Your task to perform on an android device: Clear the shopping cart on target.com. Add "usb-a" to the cart on target.com Image 0: 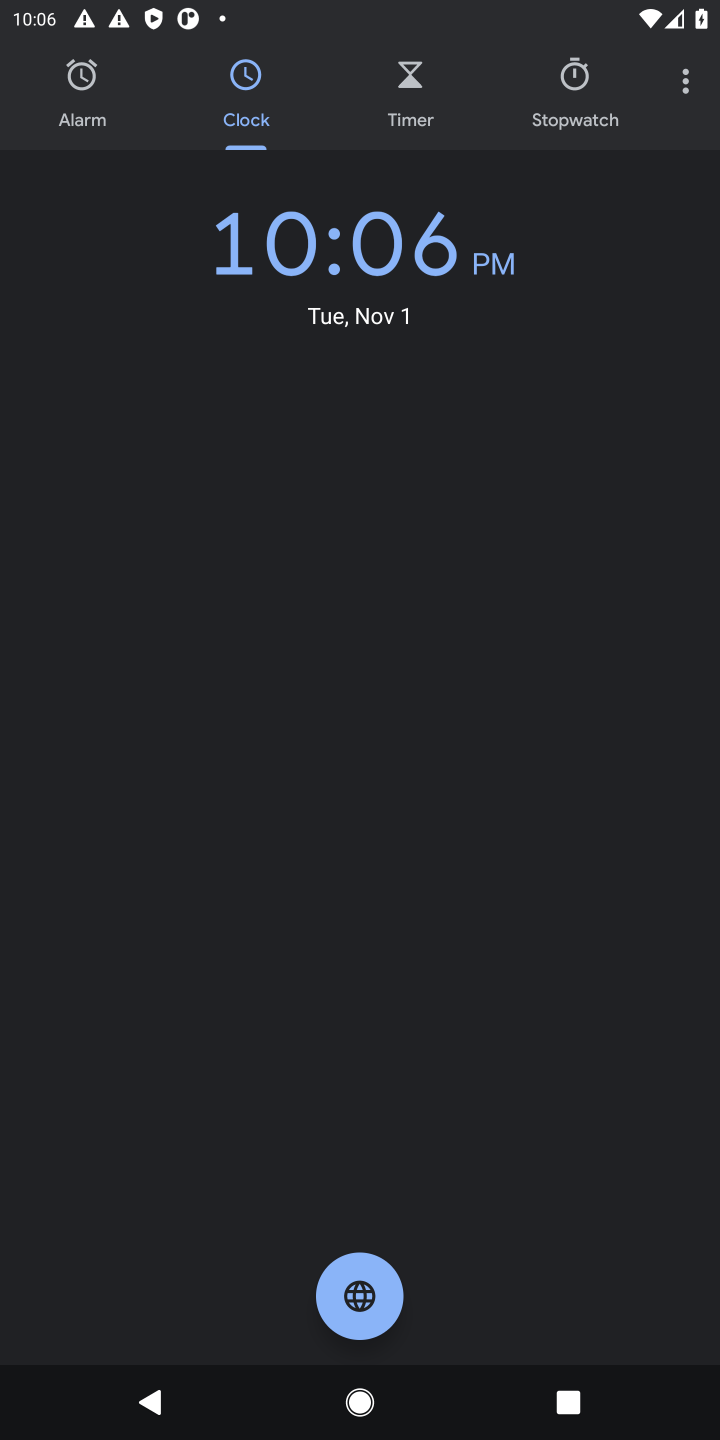
Step 0: press home button
Your task to perform on an android device: Clear the shopping cart on target.com. Add "usb-a" to the cart on target.com Image 1: 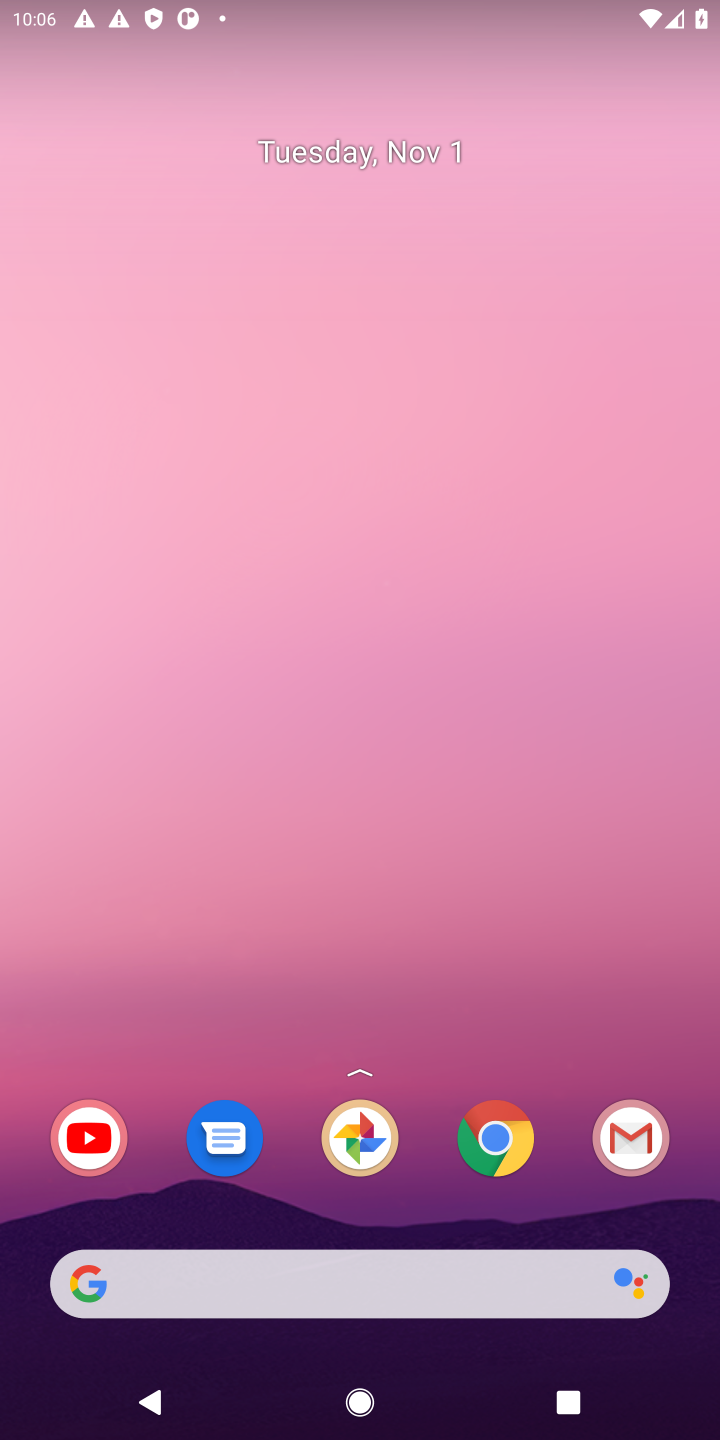
Step 1: click (495, 1150)
Your task to perform on an android device: Clear the shopping cart on target.com. Add "usb-a" to the cart on target.com Image 2: 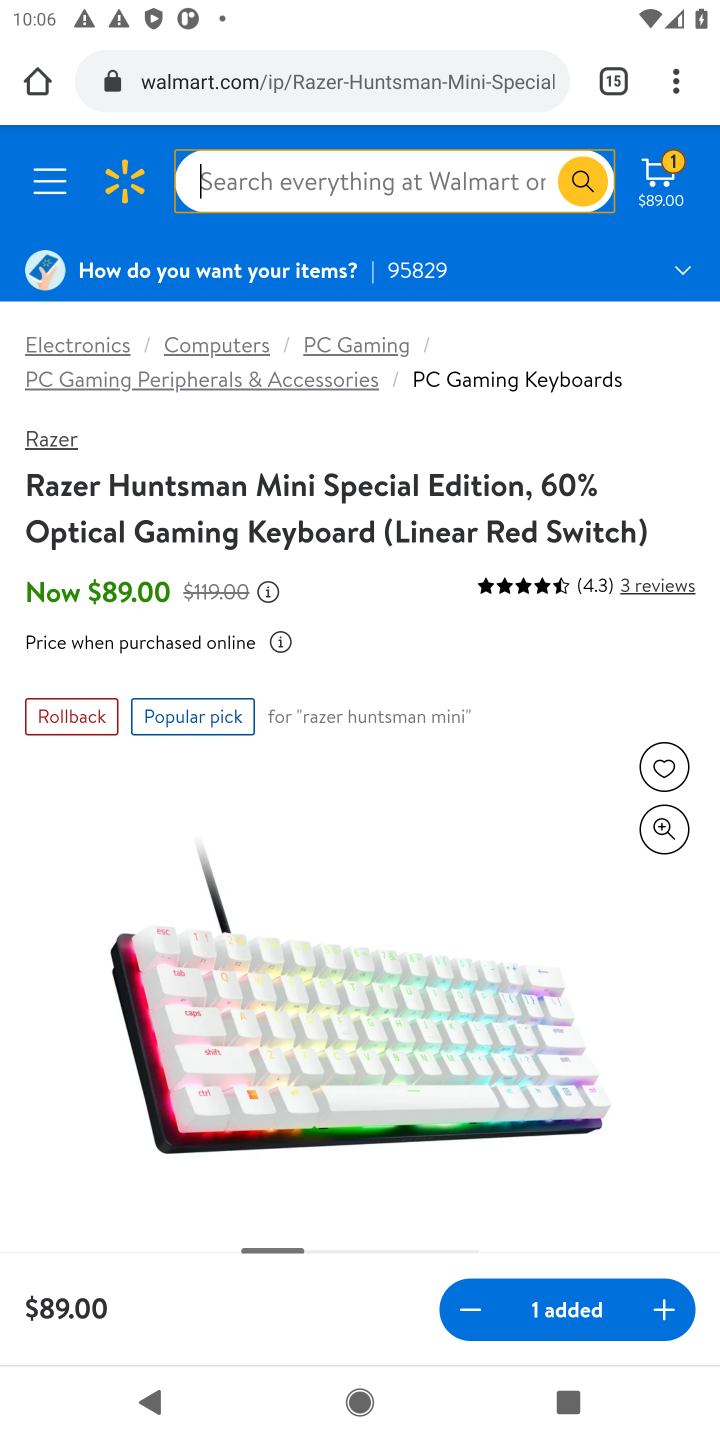
Step 2: drag from (680, 93) to (346, 157)
Your task to perform on an android device: Clear the shopping cart on target.com. Add "usb-a" to the cart on target.com Image 3: 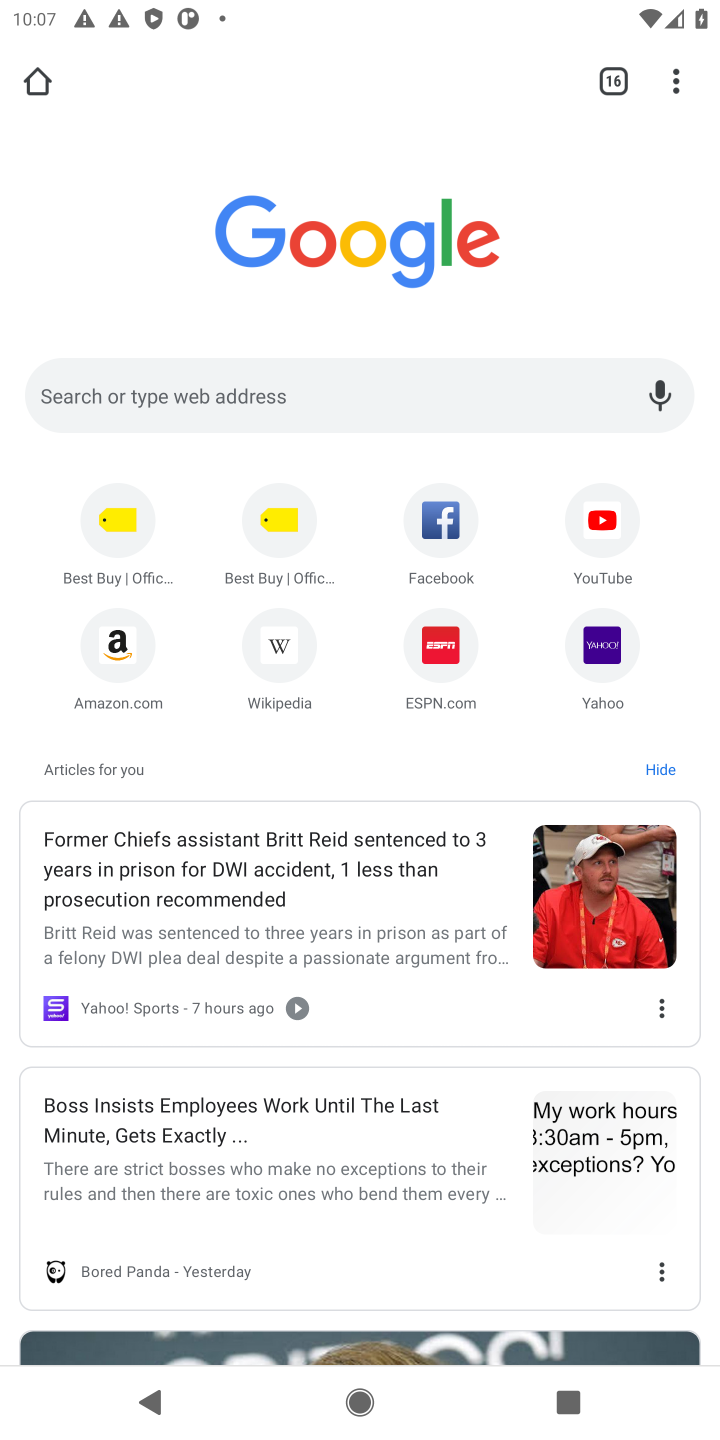
Step 3: click (186, 396)
Your task to perform on an android device: Clear the shopping cart on target.com. Add "usb-a" to the cart on target.com Image 4: 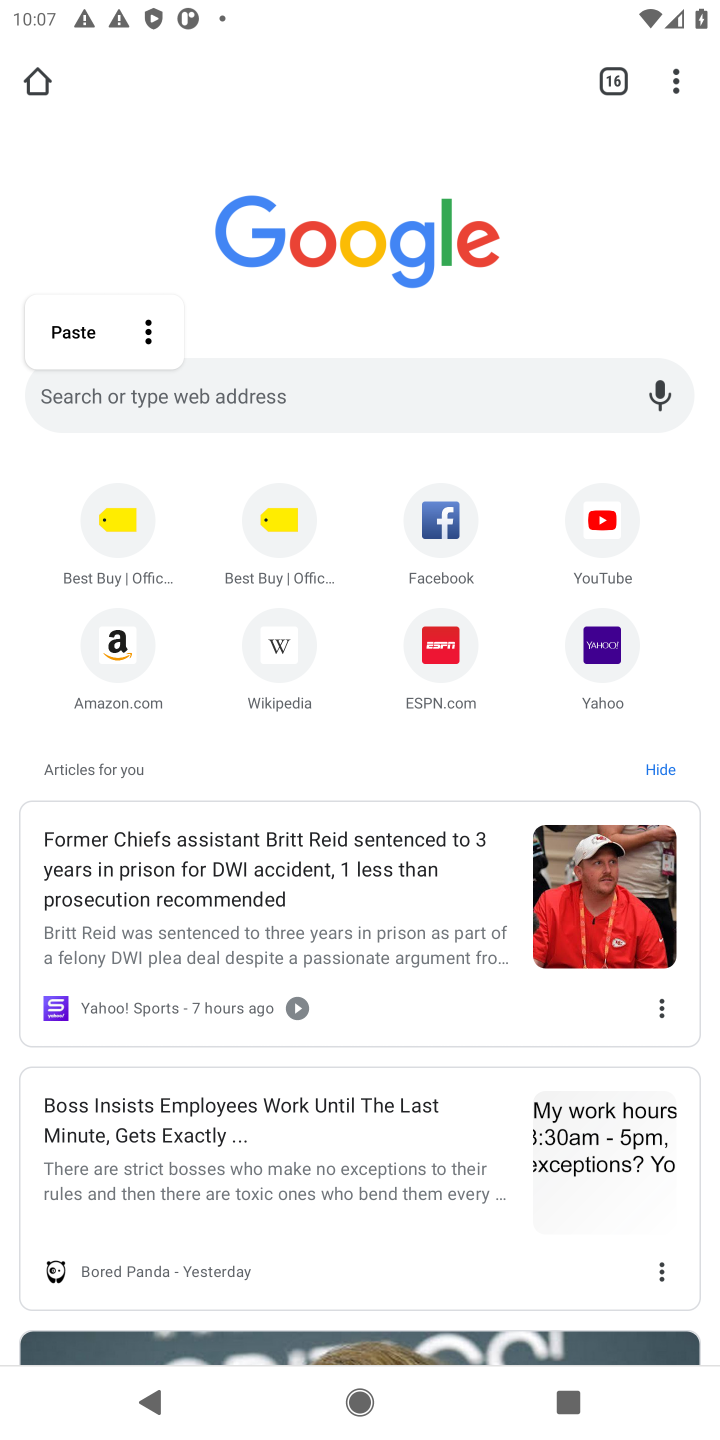
Step 4: click (372, 401)
Your task to perform on an android device: Clear the shopping cart on target.com. Add "usb-a" to the cart on target.com Image 5: 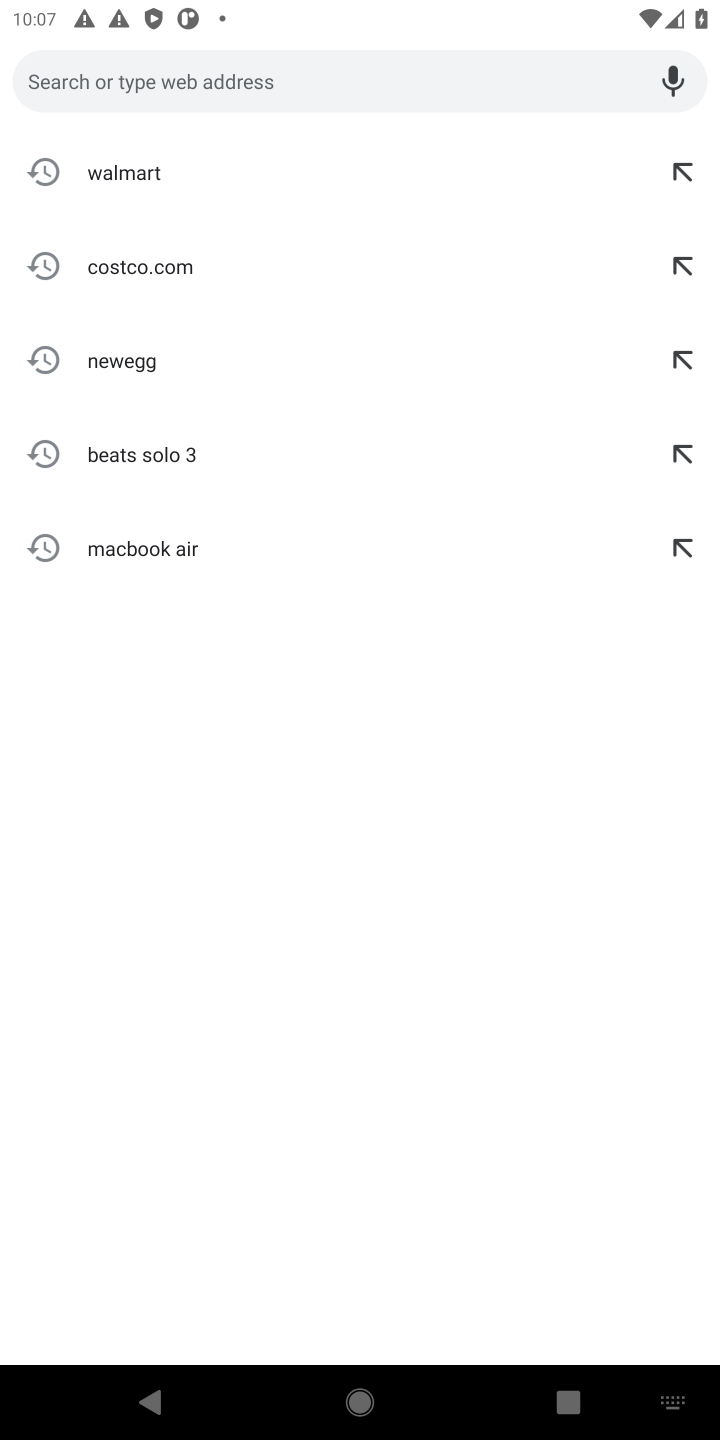
Step 5: type "target.com"
Your task to perform on an android device: Clear the shopping cart on target.com. Add "usb-a" to the cart on target.com Image 6: 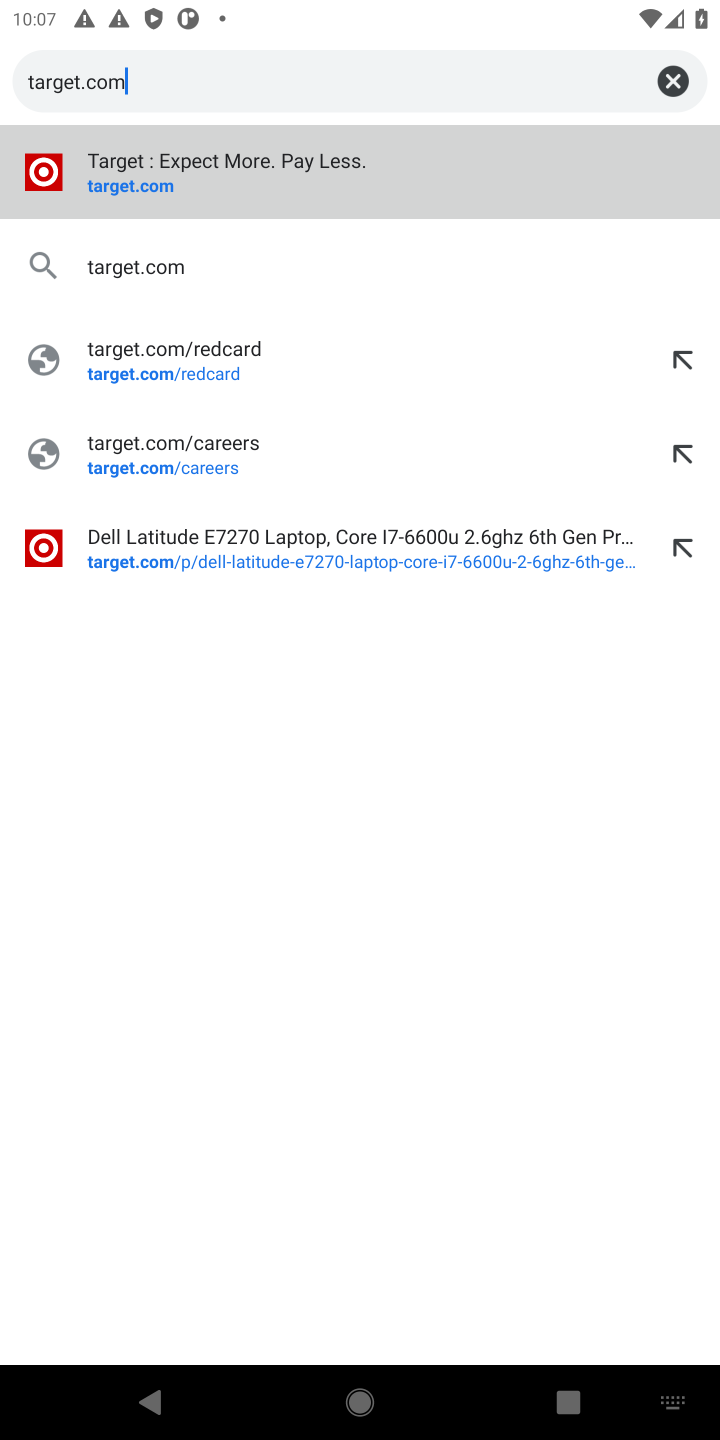
Step 6: type "usb-a"
Your task to perform on an android device: Clear the shopping cart on target.com. Add "usb-a" to the cart on target.com Image 7: 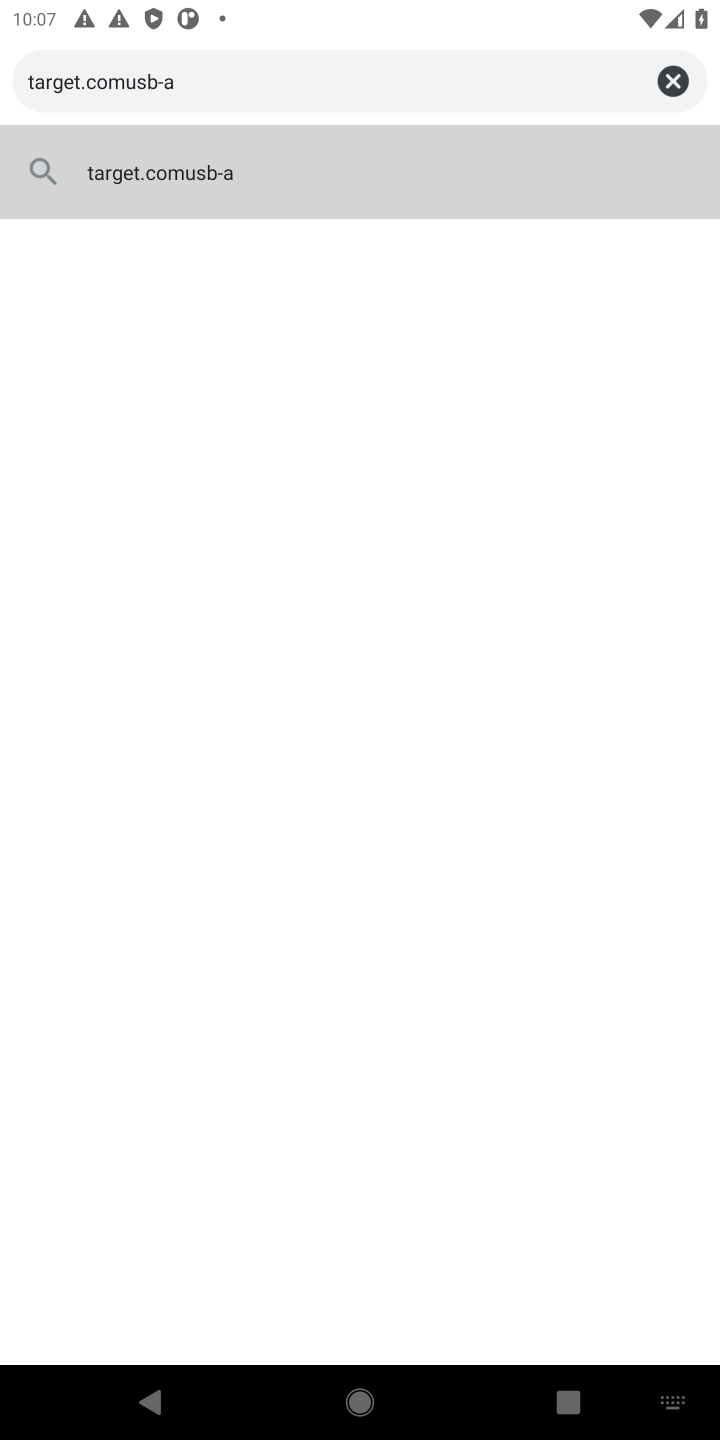
Step 7: type ""
Your task to perform on an android device: Clear the shopping cart on target.com. Add "usb-a" to the cart on target.com Image 8: 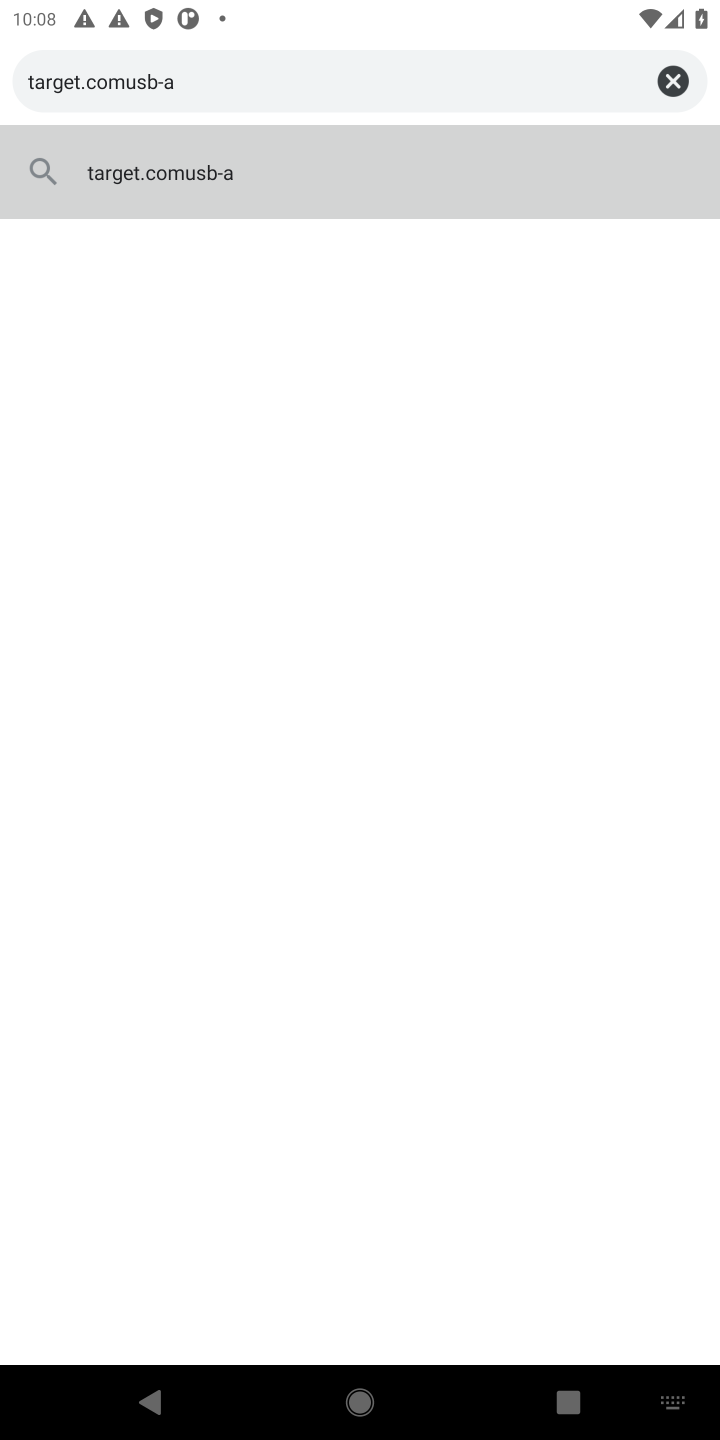
Step 8: click (129, 179)
Your task to perform on an android device: Clear the shopping cart on target.com. Add "usb-a" to the cart on target.com Image 9: 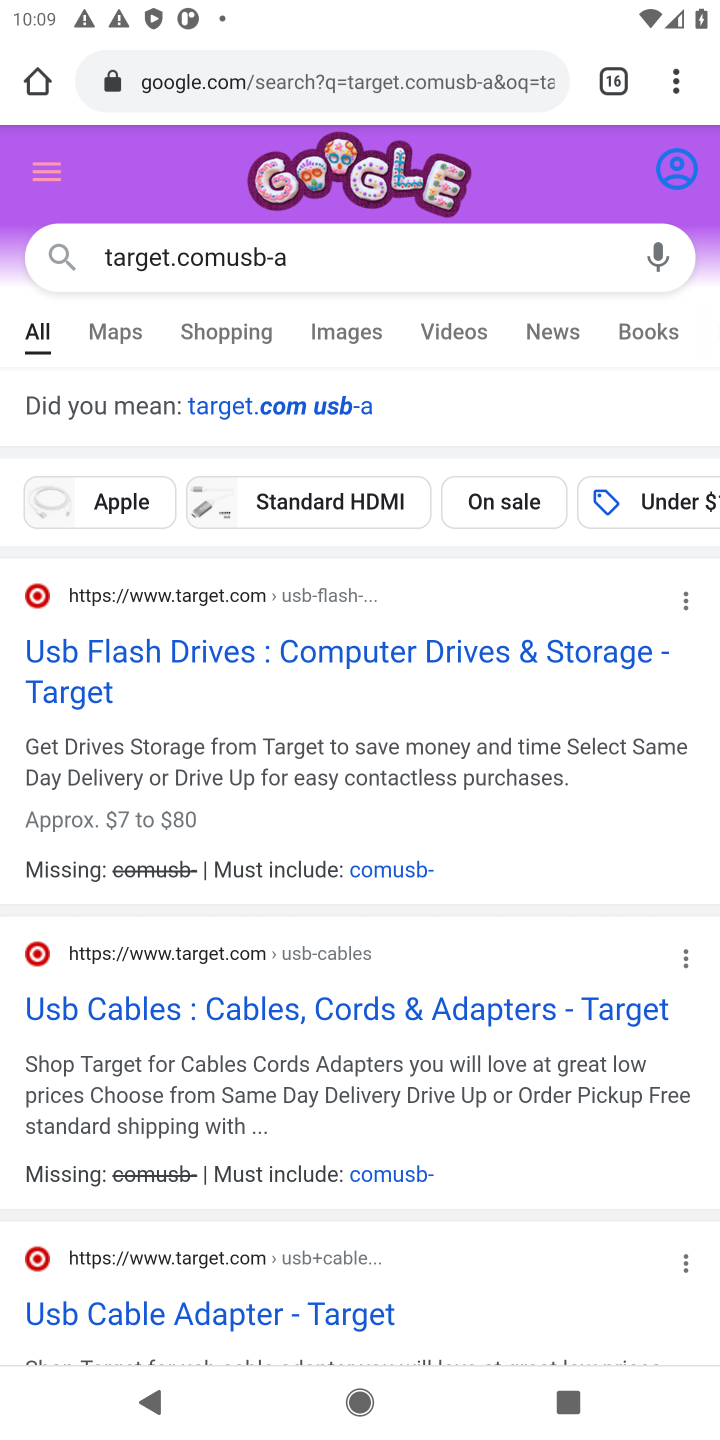
Step 9: click (124, 652)
Your task to perform on an android device: Clear the shopping cart on target.com. Add "usb-a" to the cart on target.com Image 10: 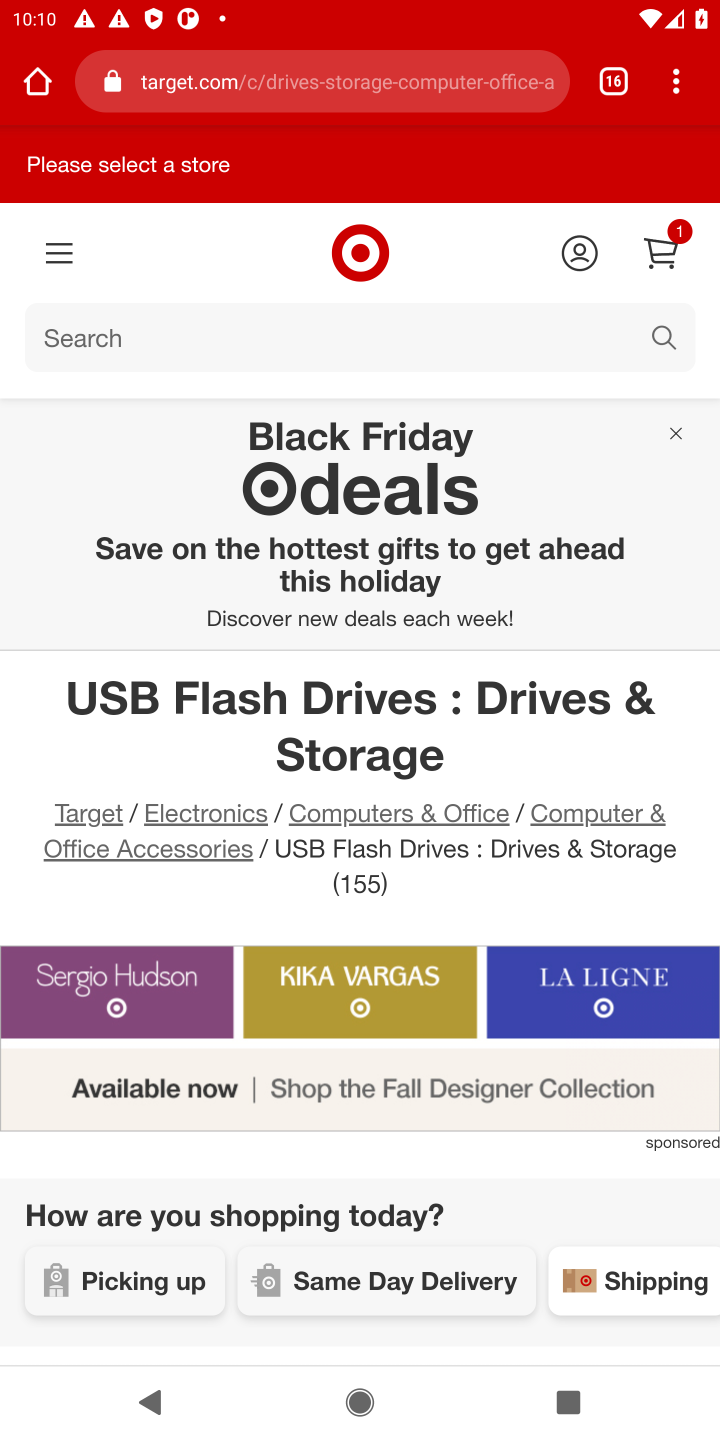
Step 10: click (472, 348)
Your task to perform on an android device: Clear the shopping cart on target.com. Add "usb-a" to the cart on target.com Image 11: 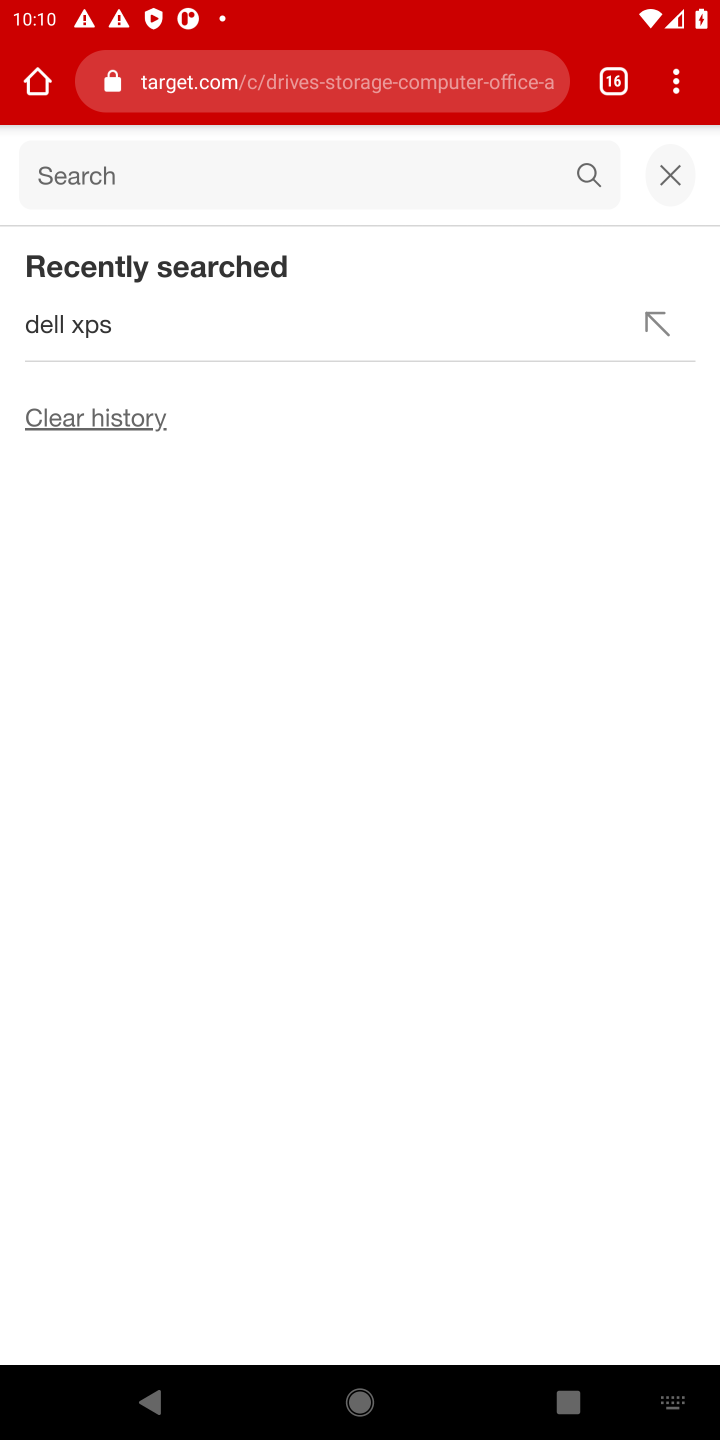
Step 11: type "usb-a"
Your task to perform on an android device: Clear the shopping cart on target.com. Add "usb-a" to the cart on target.com Image 12: 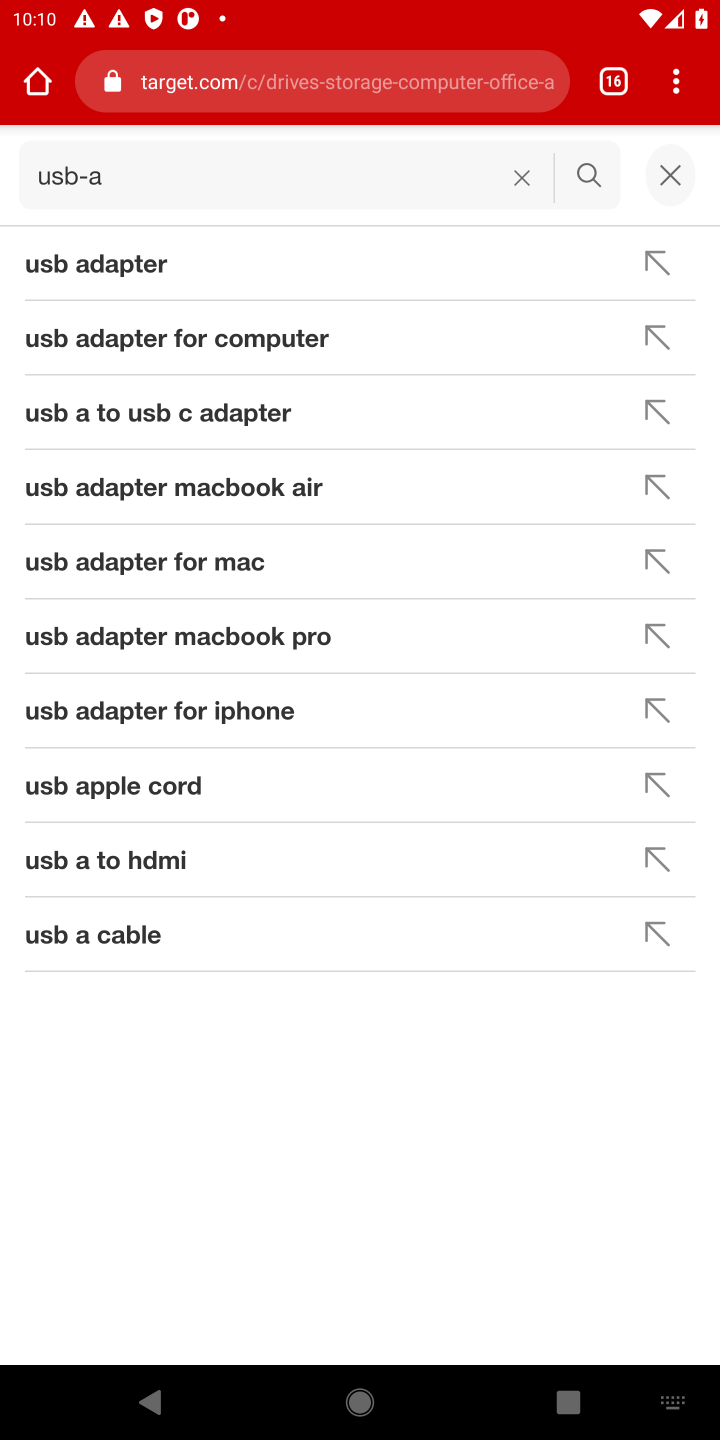
Step 12: type ""
Your task to perform on an android device: Clear the shopping cart on target.com. Add "usb-a" to the cart on target.com Image 13: 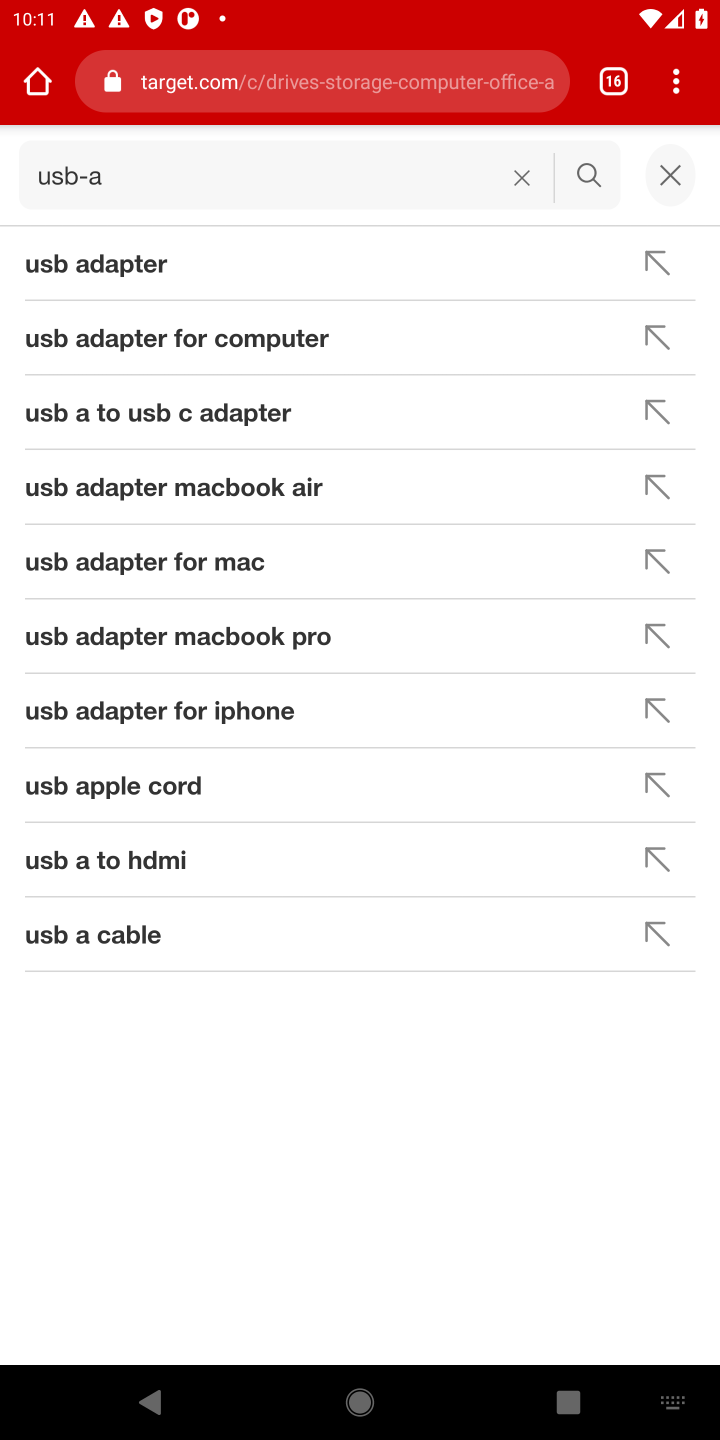
Step 13: click (97, 269)
Your task to perform on an android device: Clear the shopping cart on target.com. Add "usb-a" to the cart on target.com Image 14: 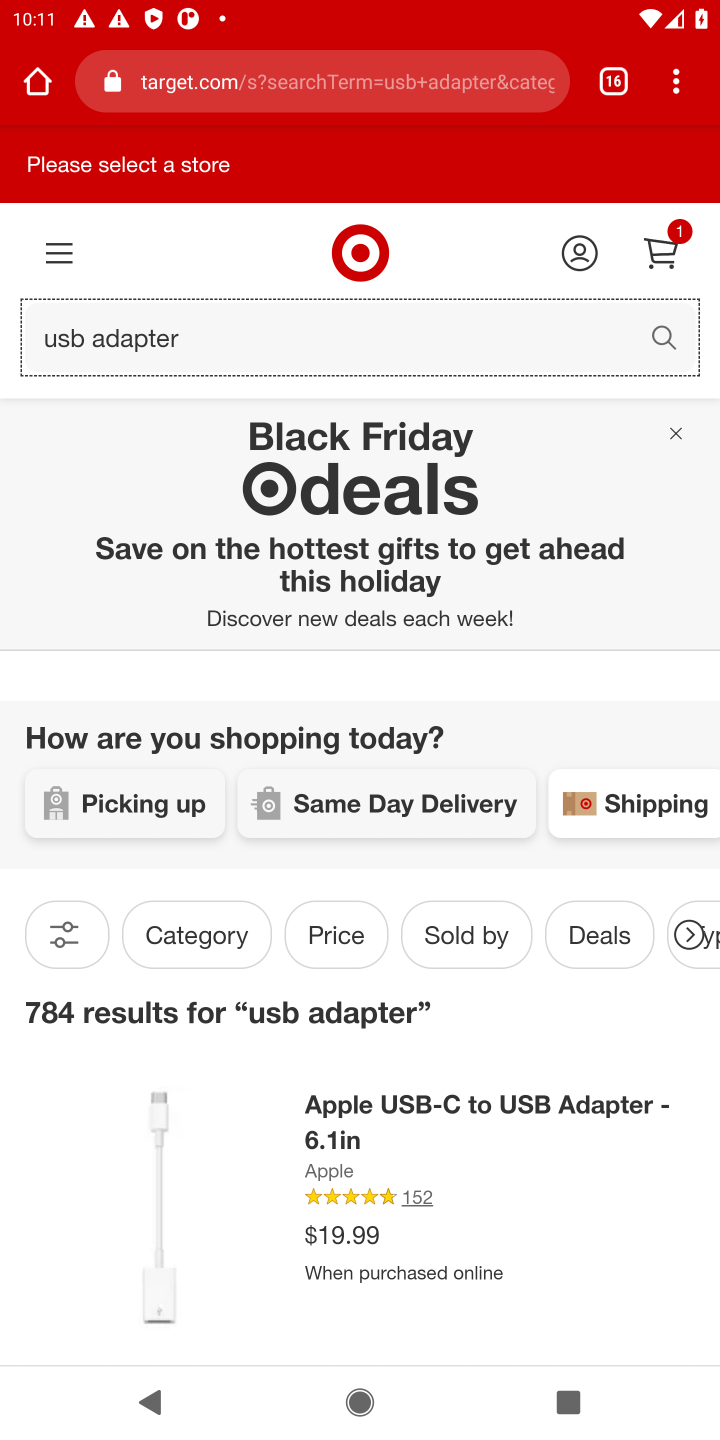
Step 14: drag from (529, 1234) to (485, 726)
Your task to perform on an android device: Clear the shopping cart on target.com. Add "usb-a" to the cart on target.com Image 15: 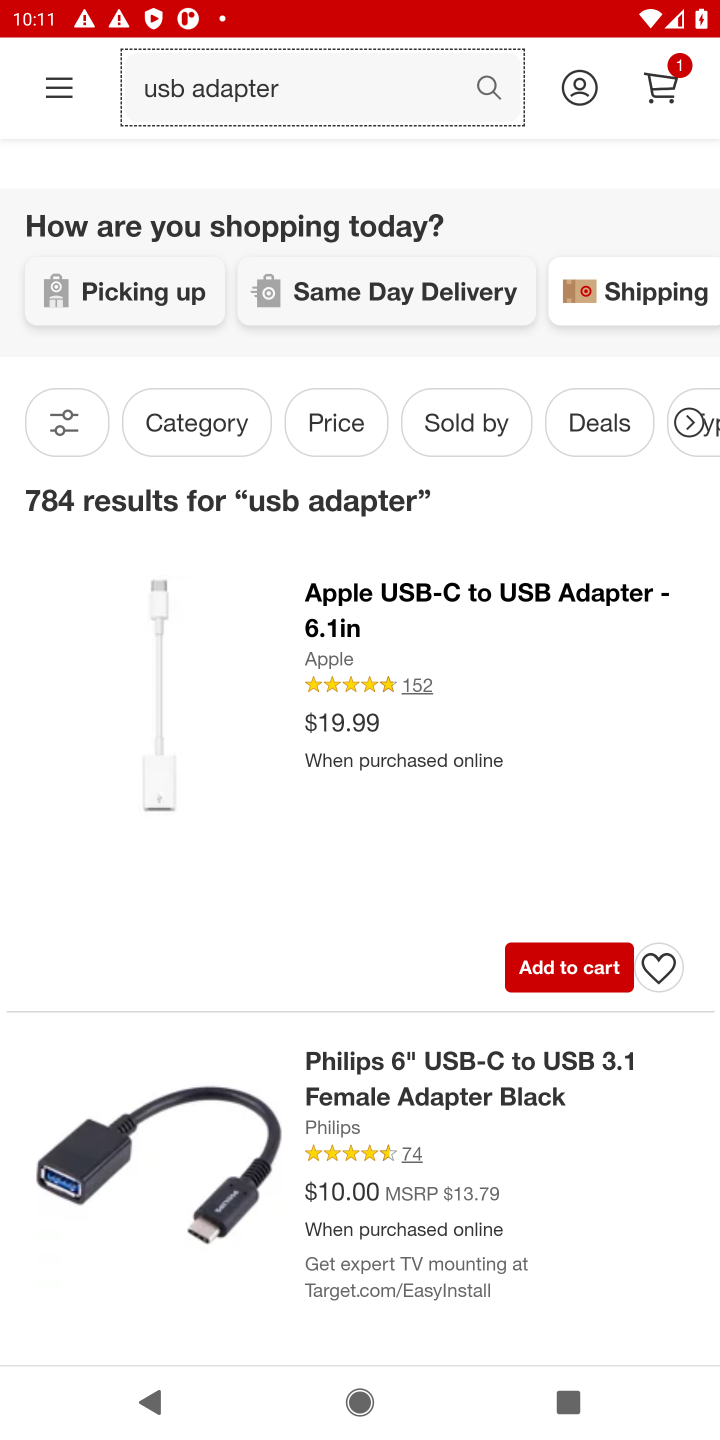
Step 15: click (564, 977)
Your task to perform on an android device: Clear the shopping cart on target.com. Add "usb-a" to the cart on target.com Image 16: 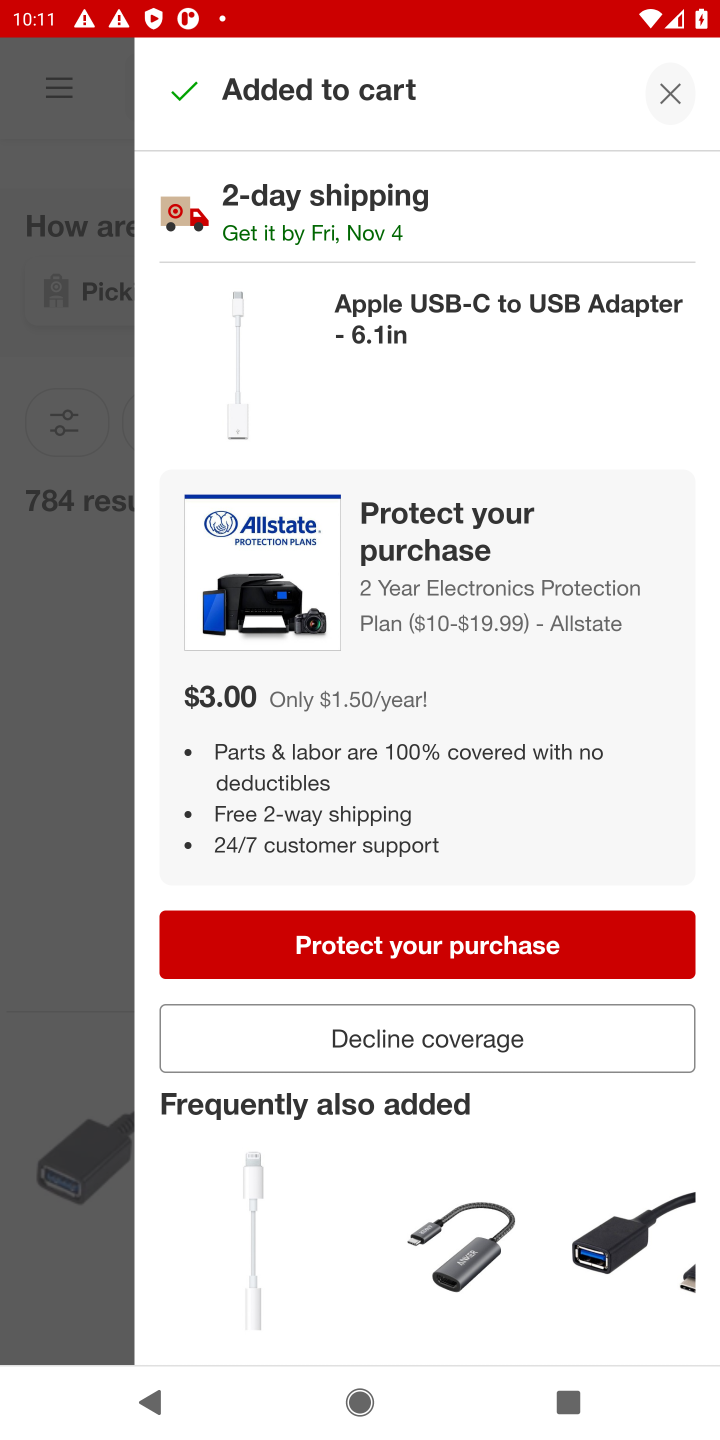
Step 16: task complete